Your task to perform on an android device: turn off priority inbox in the gmail app Image 0: 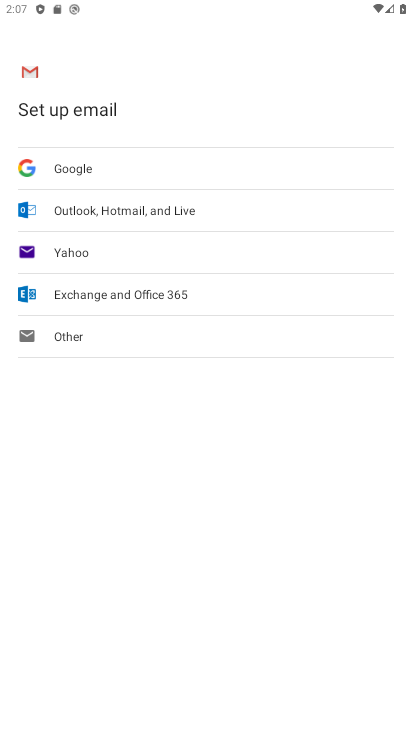
Step 0: press home button
Your task to perform on an android device: turn off priority inbox in the gmail app Image 1: 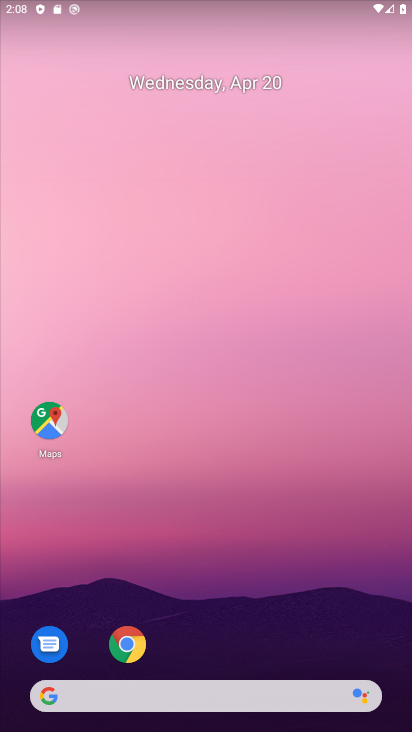
Step 1: drag from (216, 635) to (125, 41)
Your task to perform on an android device: turn off priority inbox in the gmail app Image 2: 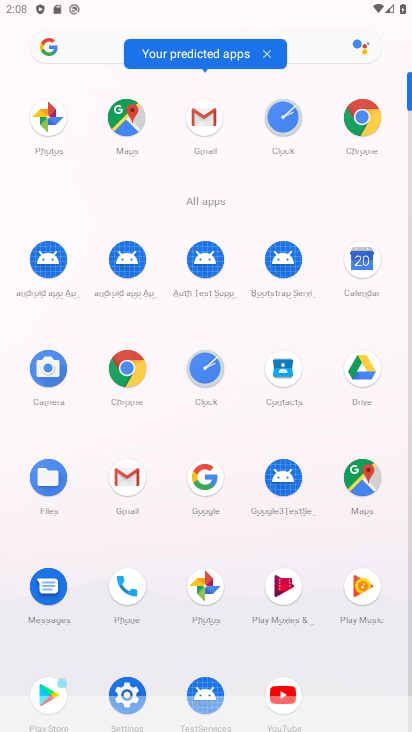
Step 2: click (120, 475)
Your task to perform on an android device: turn off priority inbox in the gmail app Image 3: 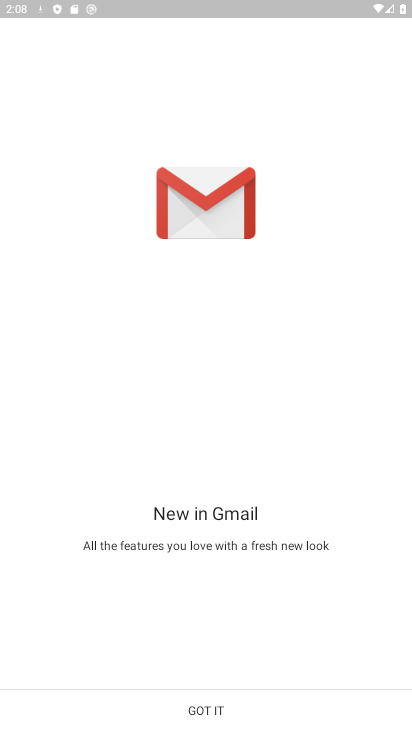
Step 3: click (211, 706)
Your task to perform on an android device: turn off priority inbox in the gmail app Image 4: 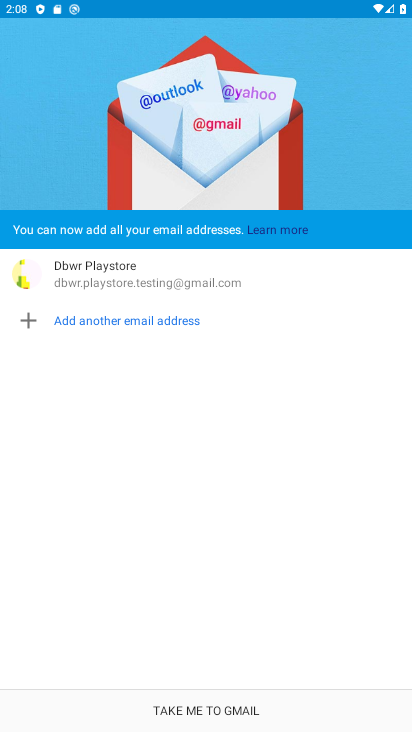
Step 4: click (203, 710)
Your task to perform on an android device: turn off priority inbox in the gmail app Image 5: 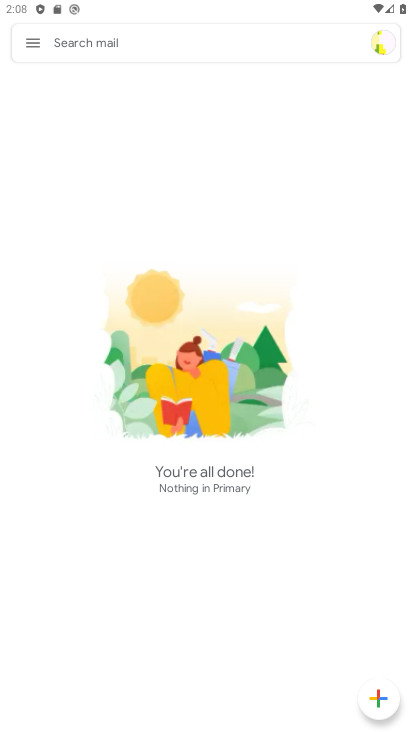
Step 5: click (30, 38)
Your task to perform on an android device: turn off priority inbox in the gmail app Image 6: 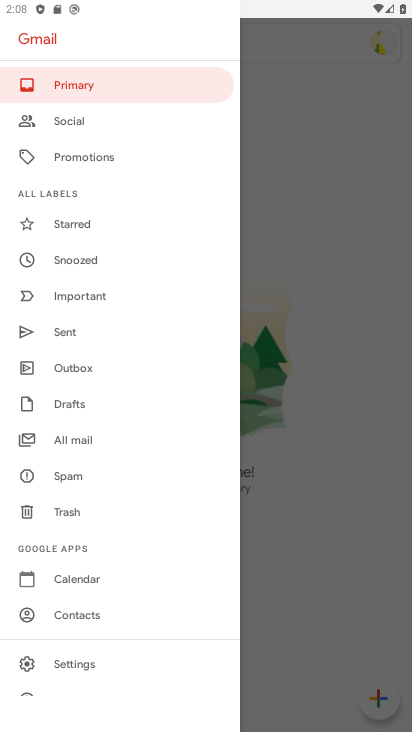
Step 6: drag from (89, 626) to (105, 378)
Your task to perform on an android device: turn off priority inbox in the gmail app Image 7: 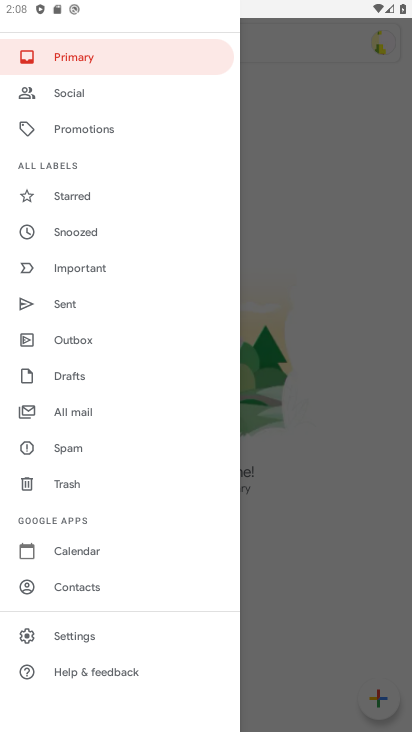
Step 7: click (70, 635)
Your task to perform on an android device: turn off priority inbox in the gmail app Image 8: 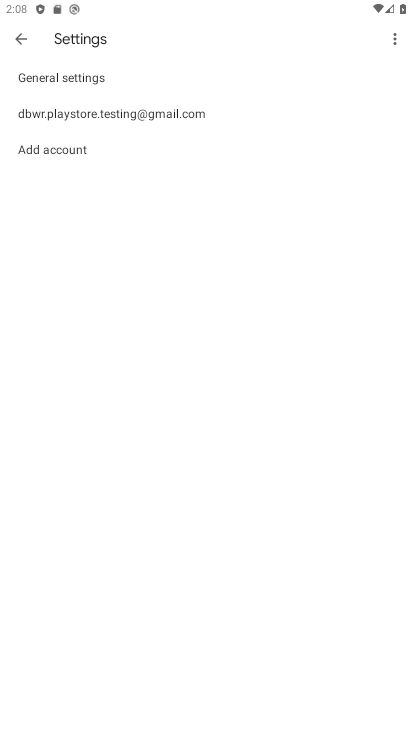
Step 8: click (95, 112)
Your task to perform on an android device: turn off priority inbox in the gmail app Image 9: 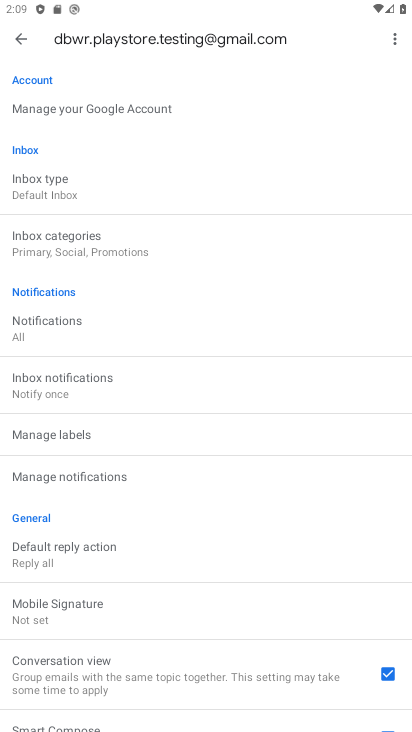
Step 9: click (50, 179)
Your task to perform on an android device: turn off priority inbox in the gmail app Image 10: 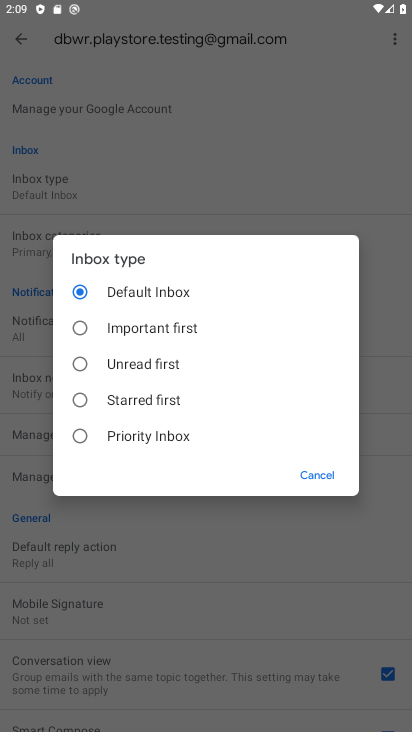
Step 10: task complete